Your task to perform on an android device: turn on improve location accuracy Image 0: 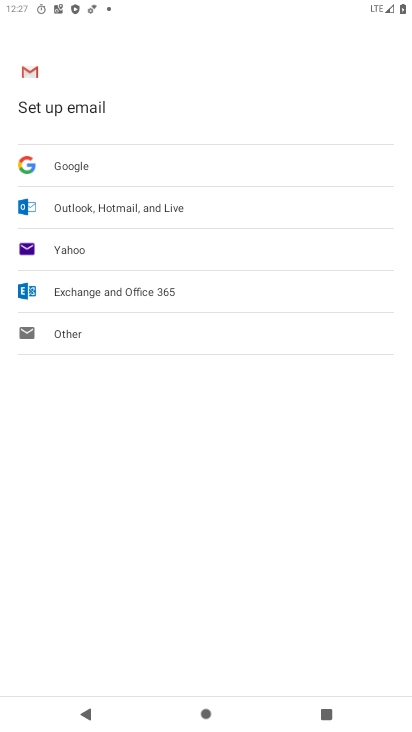
Step 0: press home button
Your task to perform on an android device: turn on improve location accuracy Image 1: 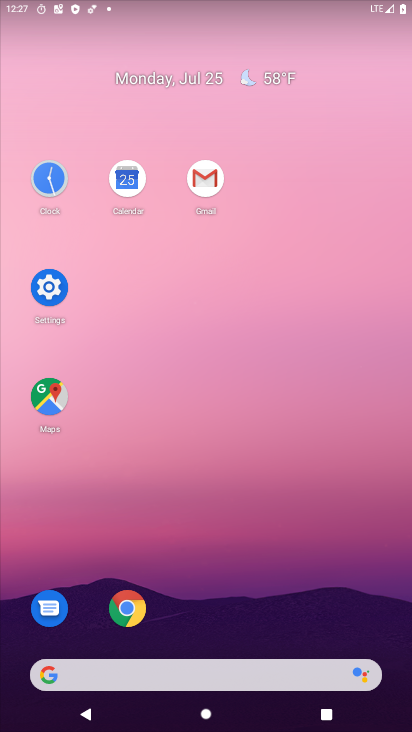
Step 1: click (44, 291)
Your task to perform on an android device: turn on improve location accuracy Image 2: 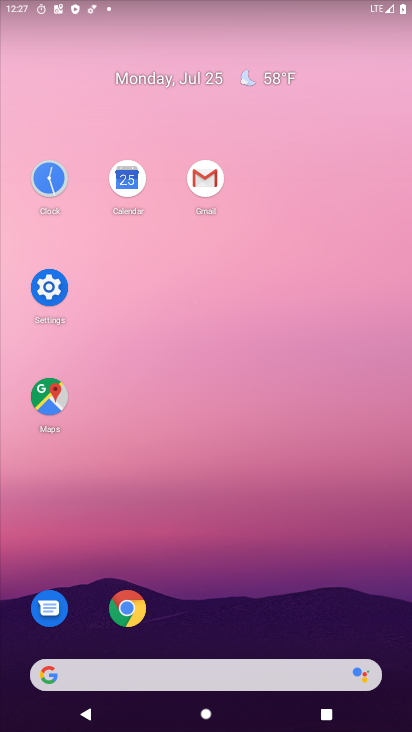
Step 2: click (33, 287)
Your task to perform on an android device: turn on improve location accuracy Image 3: 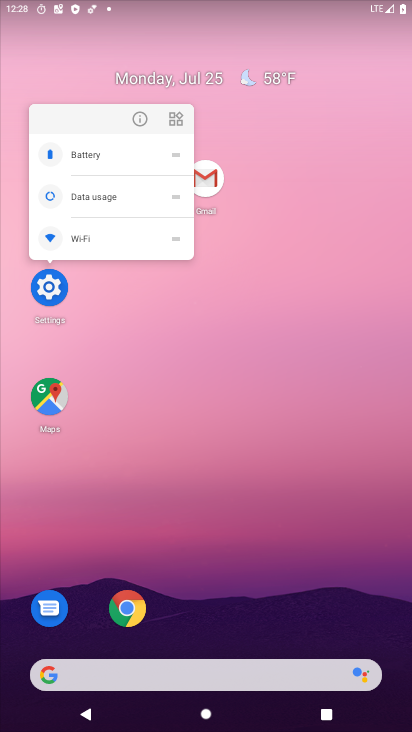
Step 3: click (38, 295)
Your task to perform on an android device: turn on improve location accuracy Image 4: 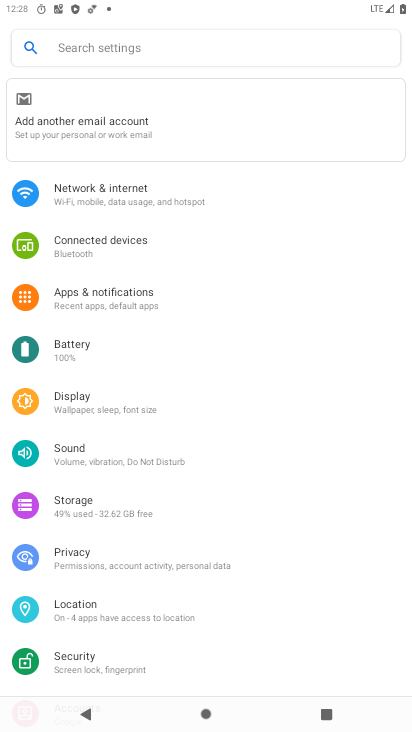
Step 4: click (110, 608)
Your task to perform on an android device: turn on improve location accuracy Image 5: 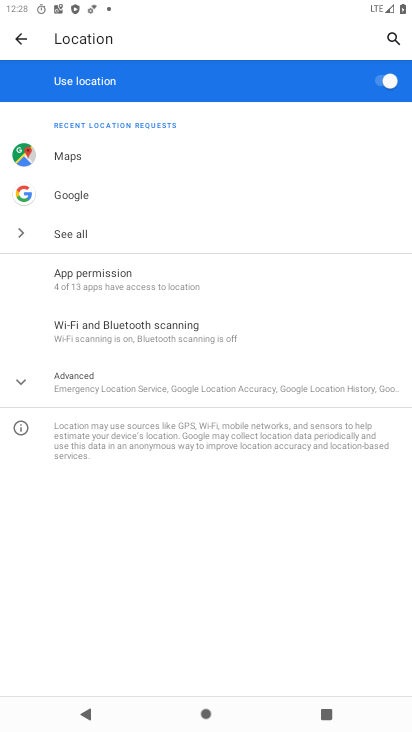
Step 5: click (108, 378)
Your task to perform on an android device: turn on improve location accuracy Image 6: 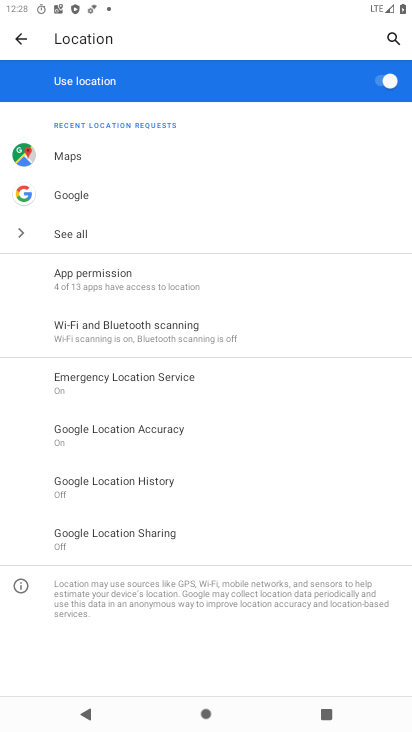
Step 6: click (147, 434)
Your task to perform on an android device: turn on improve location accuracy Image 7: 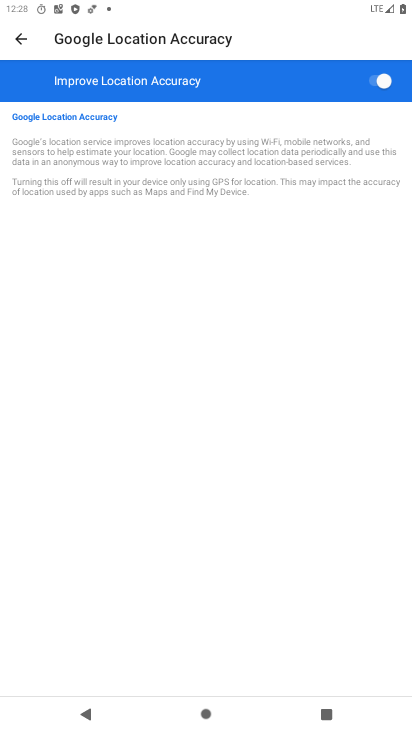
Step 7: task complete